Your task to perform on an android device: When is my next meeting? Image 0: 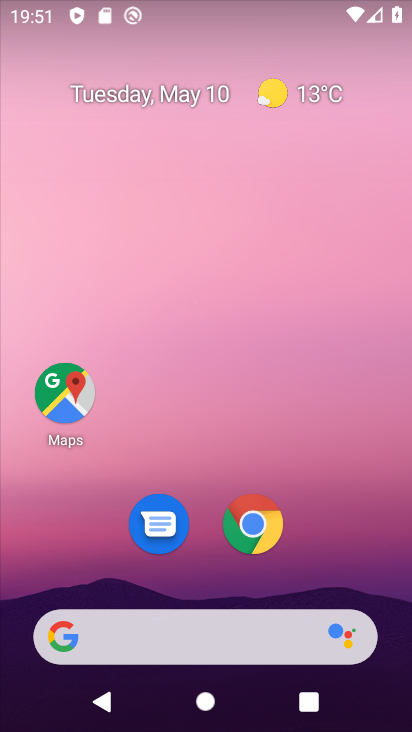
Step 0: drag from (299, 521) to (301, 14)
Your task to perform on an android device: When is my next meeting? Image 1: 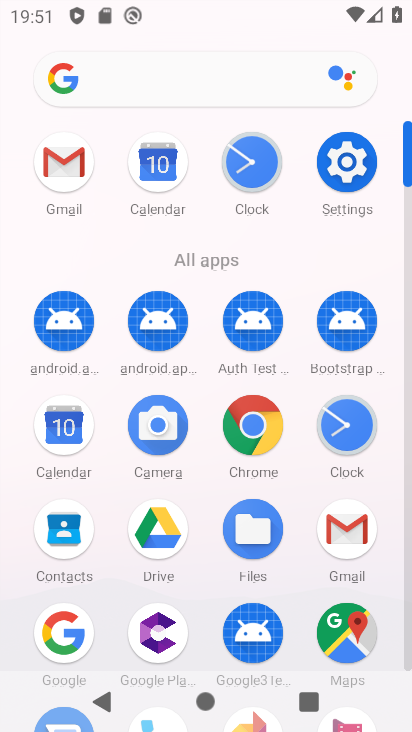
Step 1: click (154, 163)
Your task to perform on an android device: When is my next meeting? Image 2: 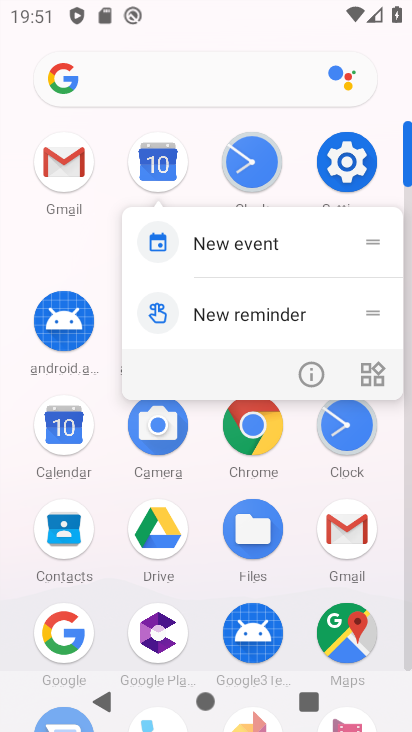
Step 2: click (155, 161)
Your task to perform on an android device: When is my next meeting? Image 3: 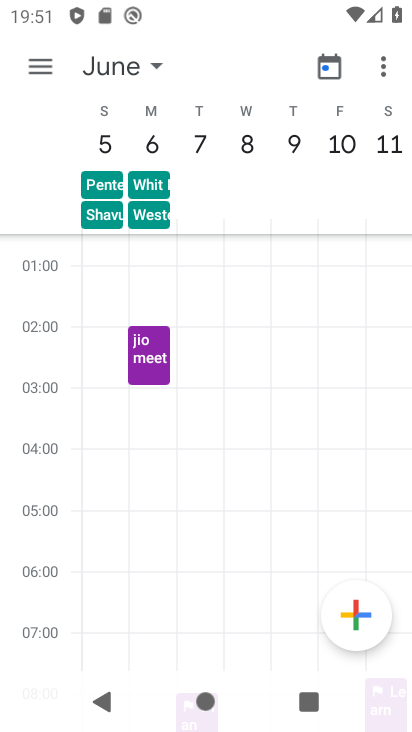
Step 3: drag from (94, 308) to (394, 288)
Your task to perform on an android device: When is my next meeting? Image 4: 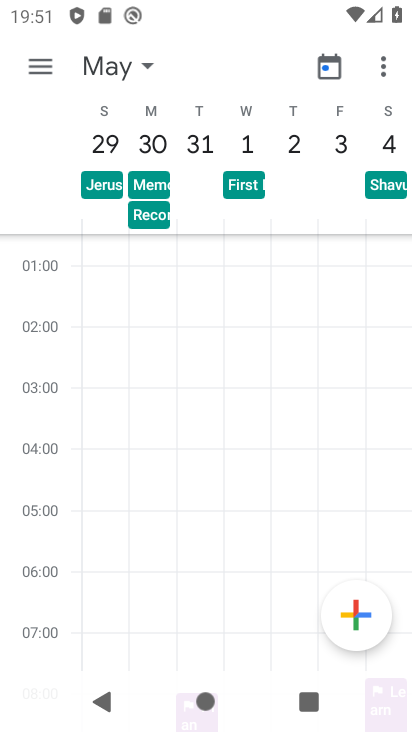
Step 4: drag from (100, 363) to (408, 368)
Your task to perform on an android device: When is my next meeting? Image 5: 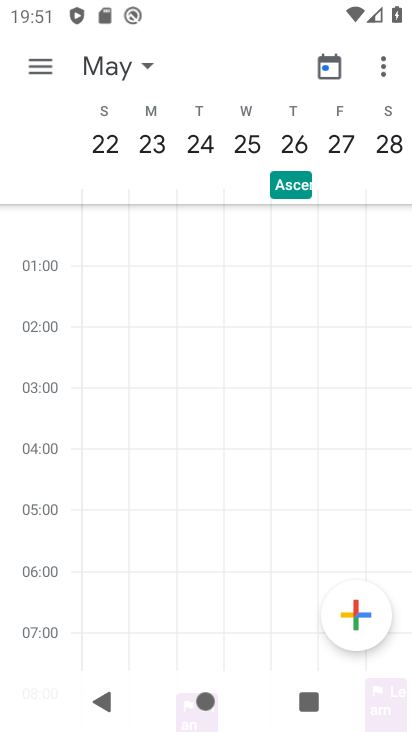
Step 5: drag from (102, 420) to (405, 392)
Your task to perform on an android device: When is my next meeting? Image 6: 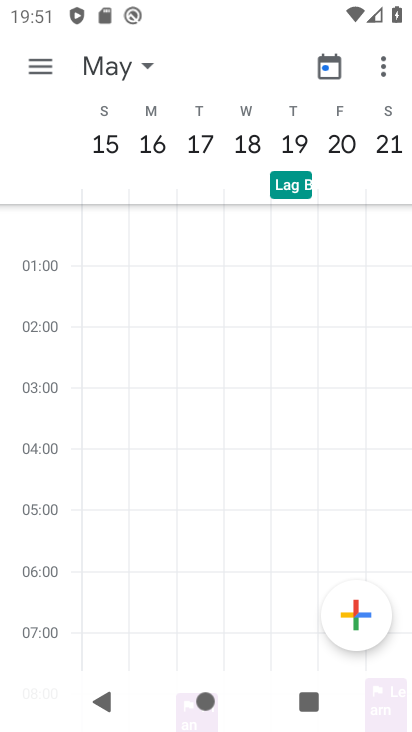
Step 6: drag from (102, 413) to (411, 336)
Your task to perform on an android device: When is my next meeting? Image 7: 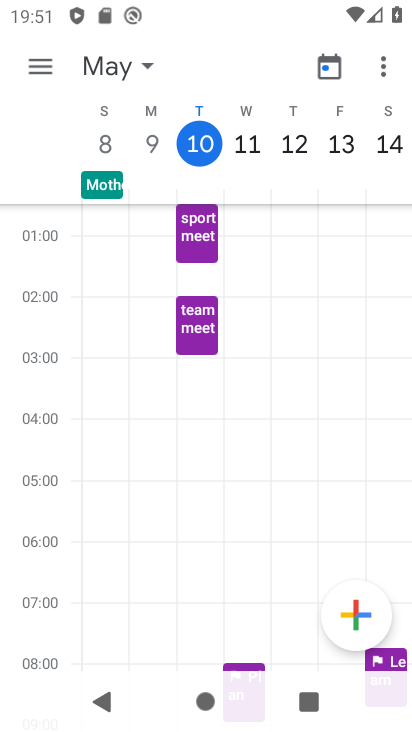
Step 7: click (200, 142)
Your task to perform on an android device: When is my next meeting? Image 8: 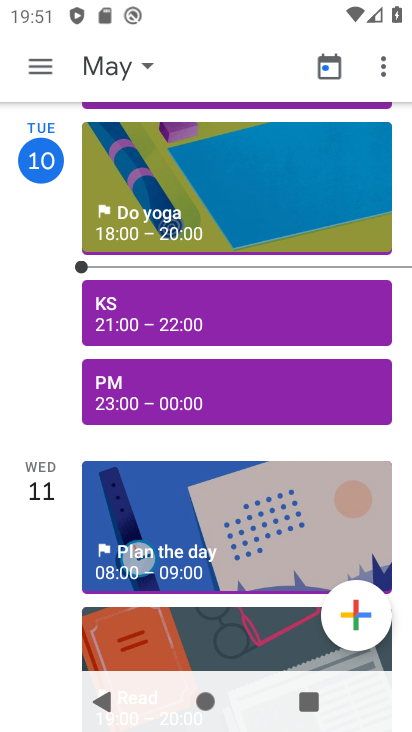
Step 8: click (360, 327)
Your task to perform on an android device: When is my next meeting? Image 9: 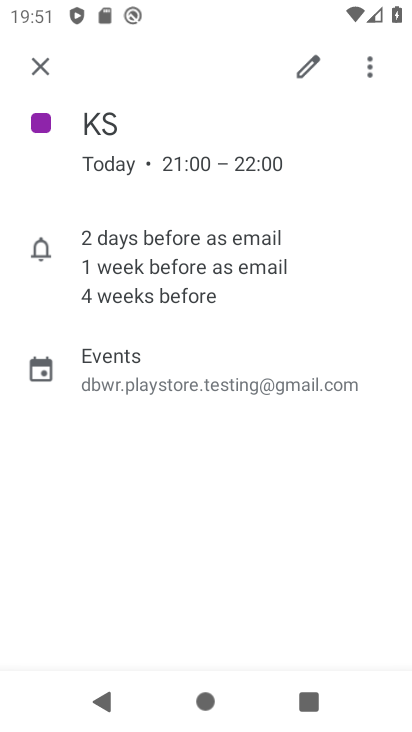
Step 9: task complete